Your task to perform on an android device: clear history in the chrome app Image 0: 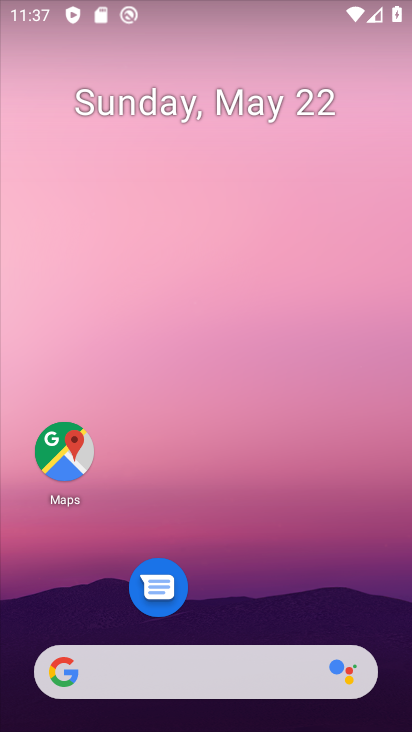
Step 0: drag from (214, 630) to (189, 87)
Your task to perform on an android device: clear history in the chrome app Image 1: 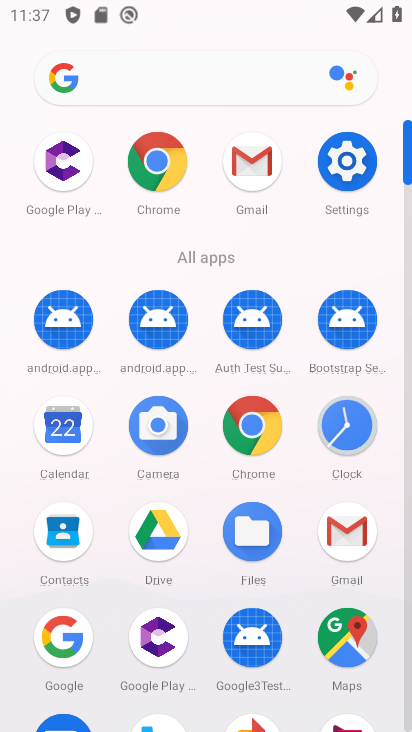
Step 1: click (237, 407)
Your task to perform on an android device: clear history in the chrome app Image 2: 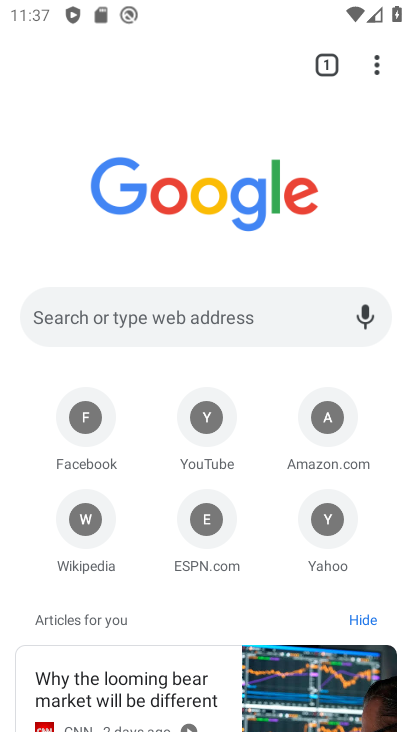
Step 2: click (378, 66)
Your task to perform on an android device: clear history in the chrome app Image 3: 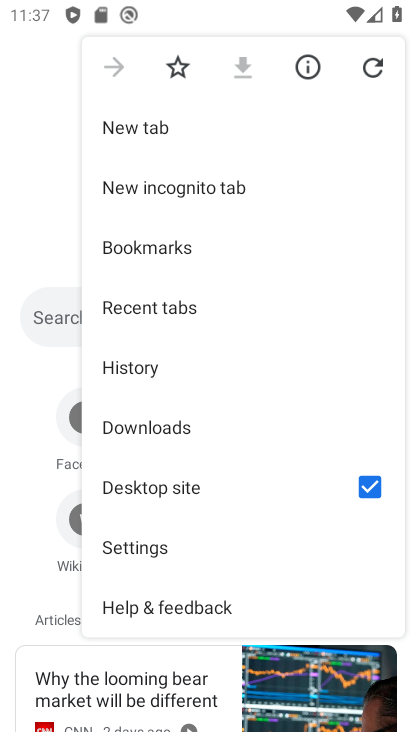
Step 3: click (139, 353)
Your task to perform on an android device: clear history in the chrome app Image 4: 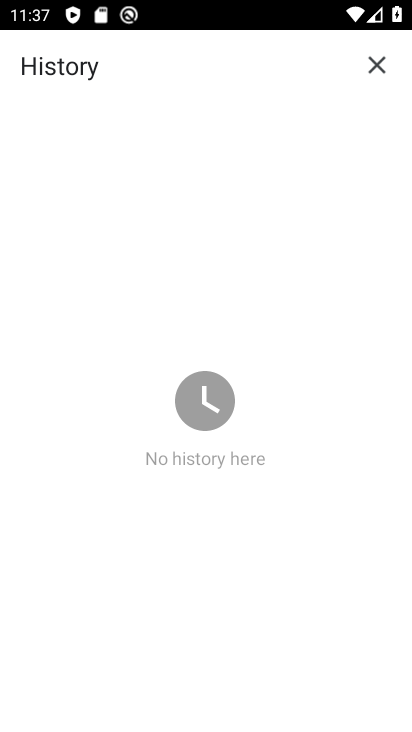
Step 4: task complete